Your task to perform on an android device: Search for seafood restaurants on Google Maps Image 0: 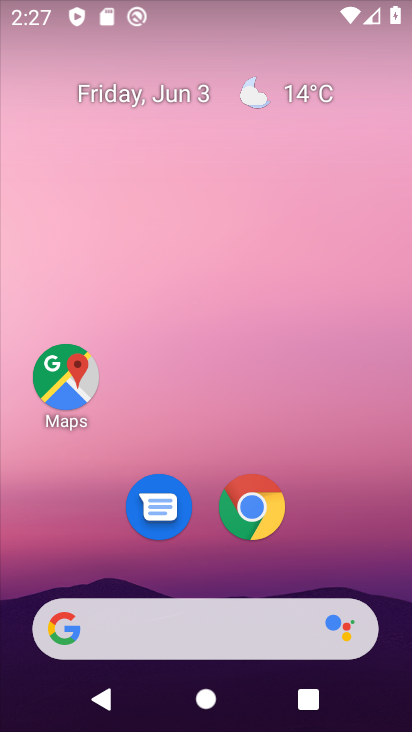
Step 0: click (63, 379)
Your task to perform on an android device: Search for seafood restaurants on Google Maps Image 1: 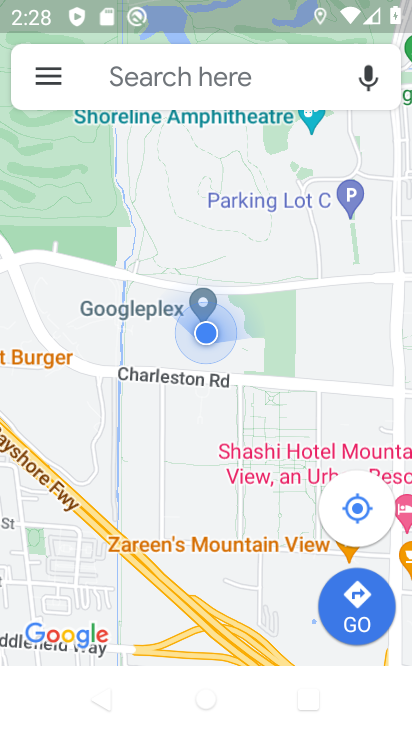
Step 1: type "seafood restaurants"
Your task to perform on an android device: Search for seafood restaurants on Google Maps Image 2: 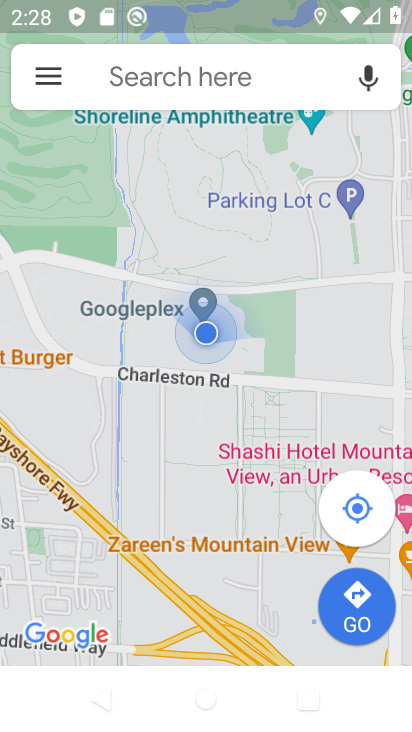
Step 2: click (215, 85)
Your task to perform on an android device: Search for seafood restaurants on Google Maps Image 3: 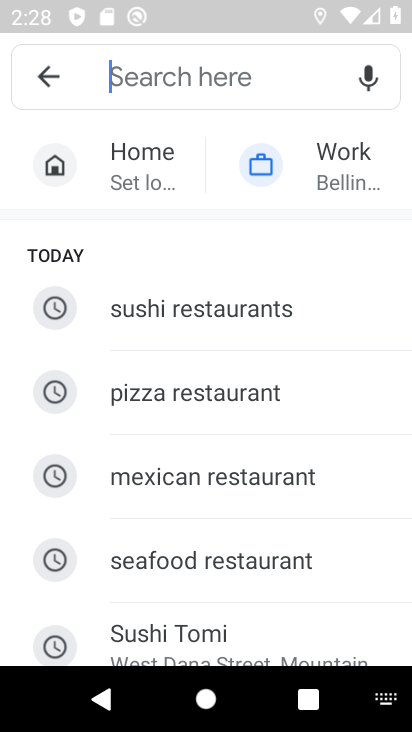
Step 3: click (260, 559)
Your task to perform on an android device: Search for seafood restaurants on Google Maps Image 4: 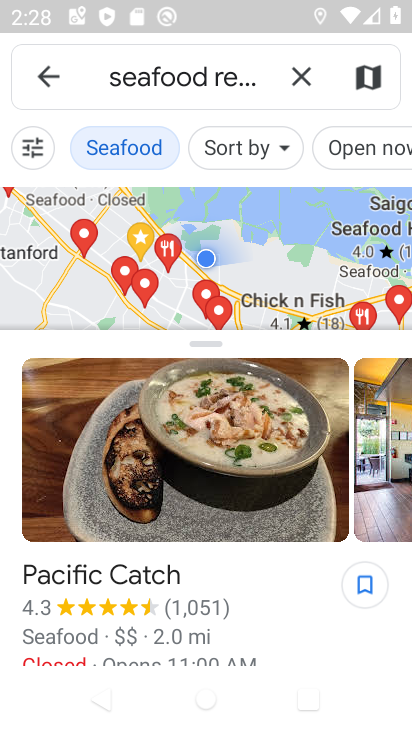
Step 4: task complete